Your task to perform on an android device: change the clock style Image 0: 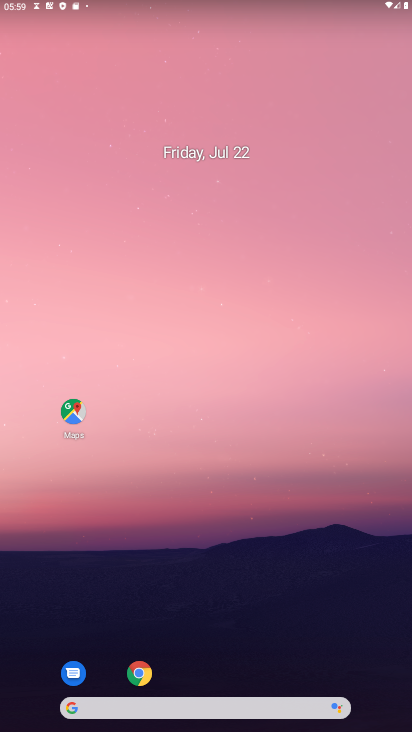
Step 0: press home button
Your task to perform on an android device: change the clock style Image 1: 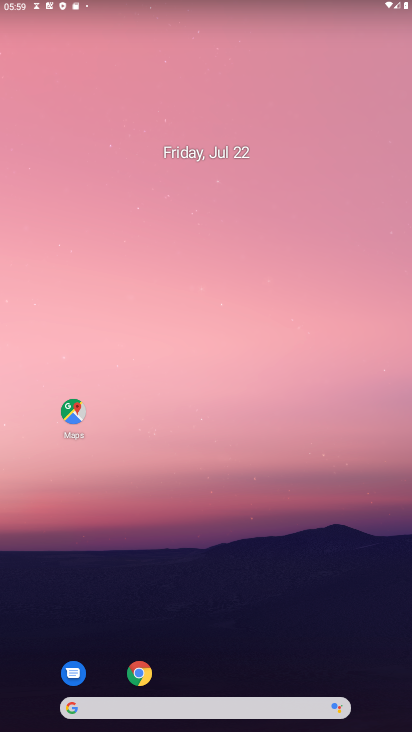
Step 1: drag from (193, 649) to (199, 3)
Your task to perform on an android device: change the clock style Image 2: 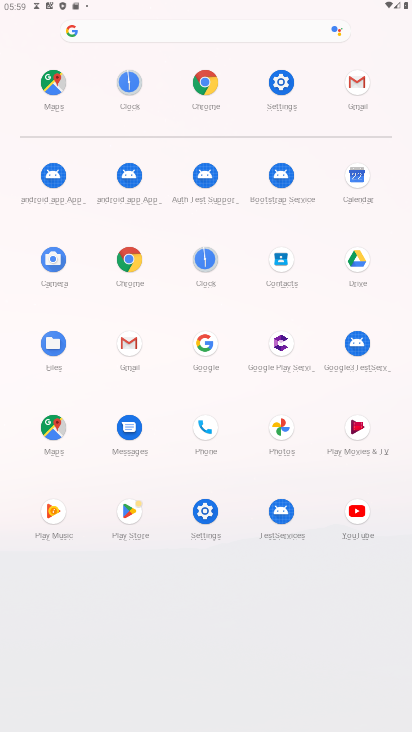
Step 2: click (200, 266)
Your task to perform on an android device: change the clock style Image 3: 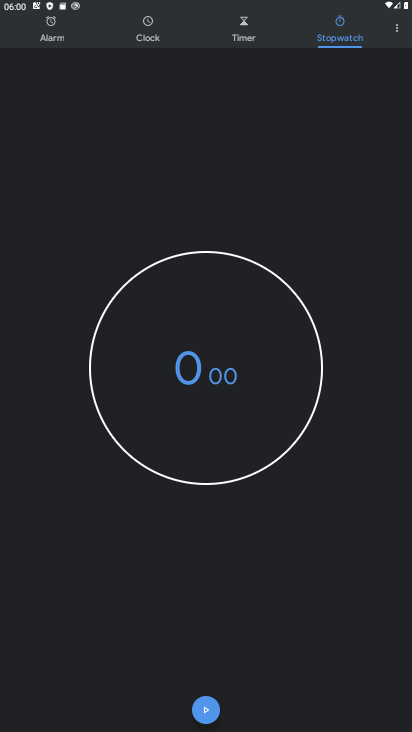
Step 3: click (397, 26)
Your task to perform on an android device: change the clock style Image 4: 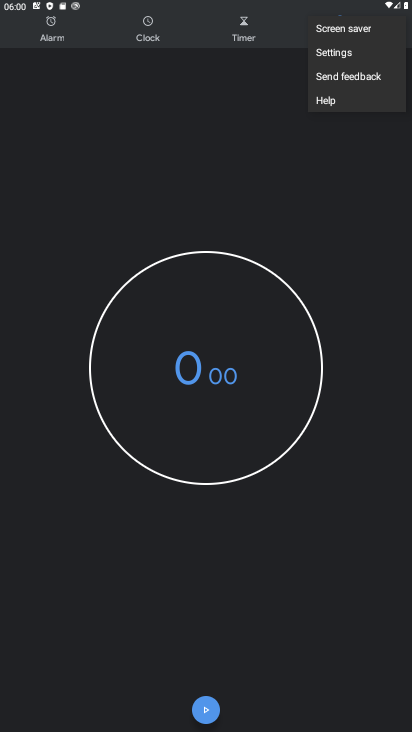
Step 4: click (340, 55)
Your task to perform on an android device: change the clock style Image 5: 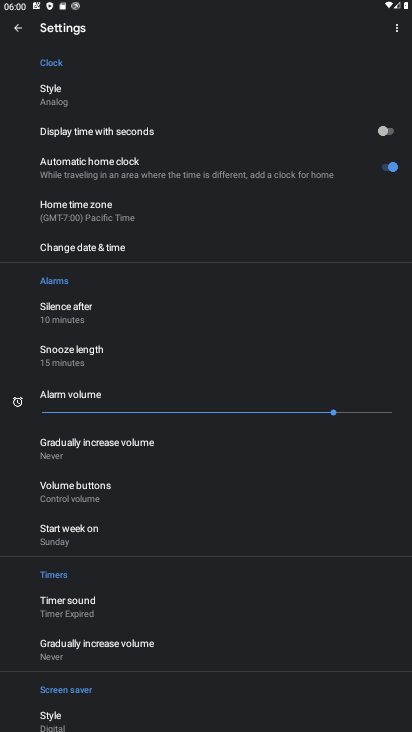
Step 5: click (58, 102)
Your task to perform on an android device: change the clock style Image 6: 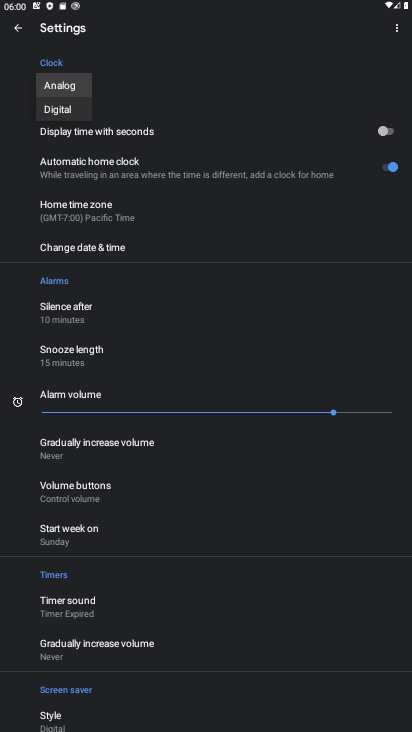
Step 6: click (58, 113)
Your task to perform on an android device: change the clock style Image 7: 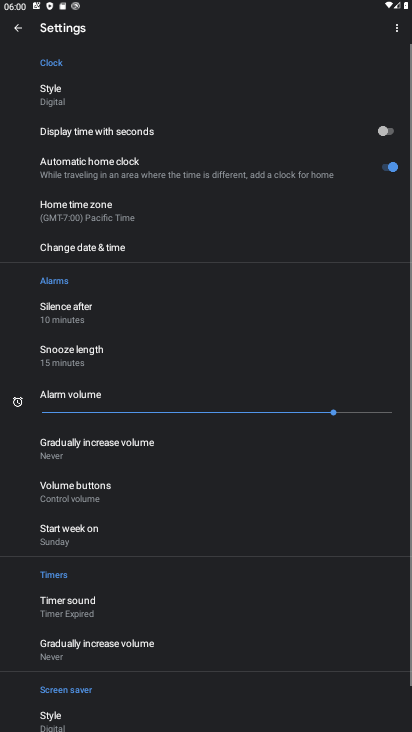
Step 7: task complete